Your task to perform on an android device: Open calendar and show me the second week of next month Image 0: 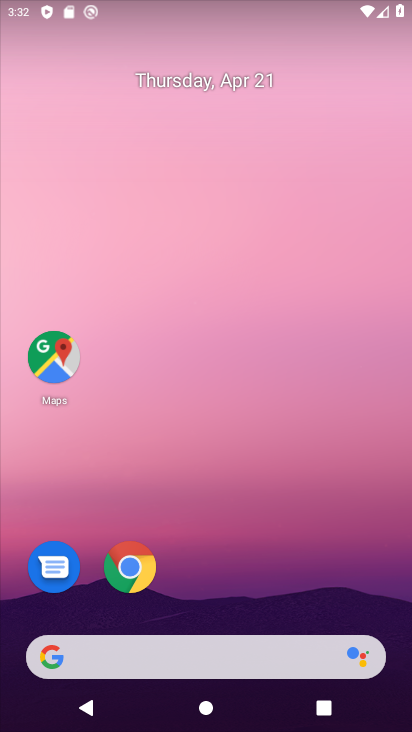
Step 0: drag from (235, 601) to (187, 84)
Your task to perform on an android device: Open calendar and show me the second week of next month Image 1: 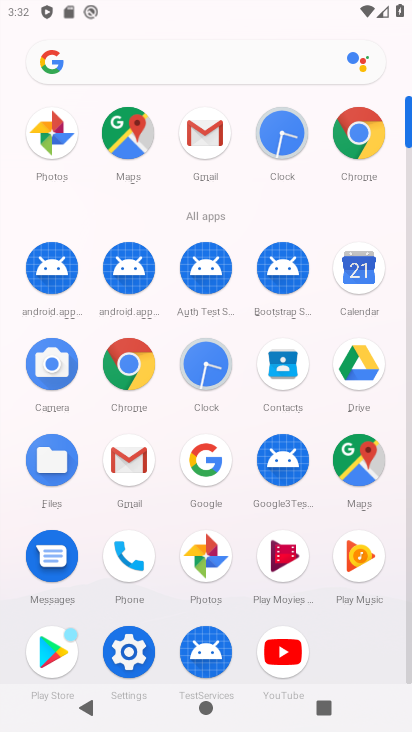
Step 1: click (357, 284)
Your task to perform on an android device: Open calendar and show me the second week of next month Image 2: 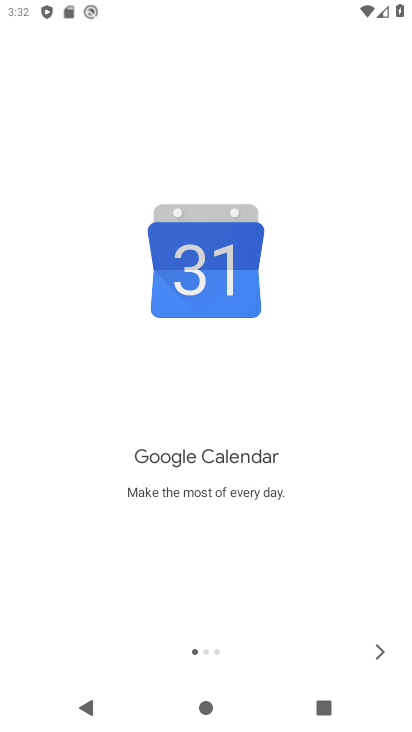
Step 2: click (381, 650)
Your task to perform on an android device: Open calendar and show me the second week of next month Image 3: 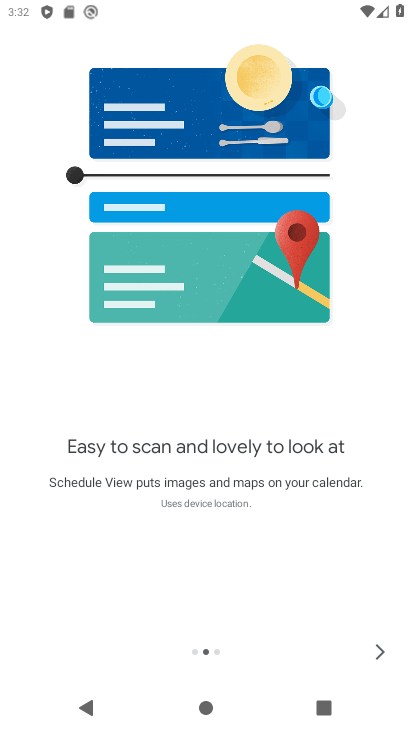
Step 3: click (381, 650)
Your task to perform on an android device: Open calendar and show me the second week of next month Image 4: 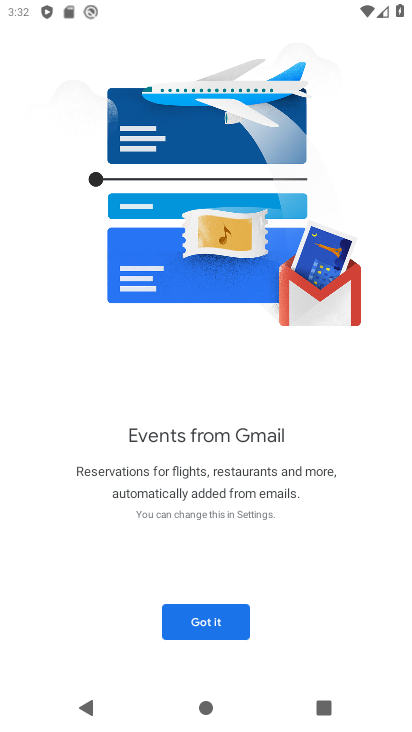
Step 4: click (217, 615)
Your task to perform on an android device: Open calendar and show me the second week of next month Image 5: 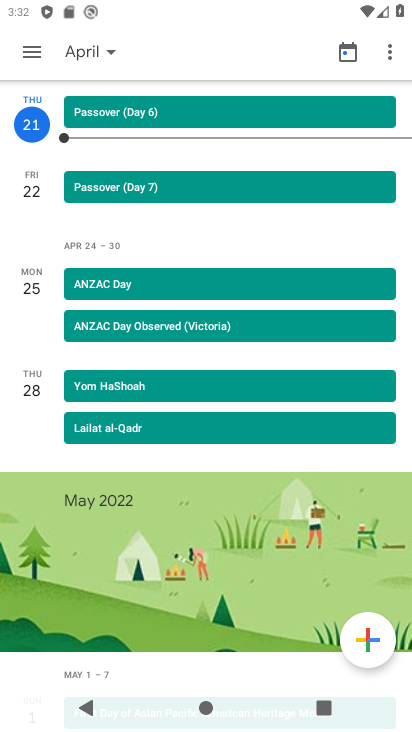
Step 5: click (112, 54)
Your task to perform on an android device: Open calendar and show me the second week of next month Image 6: 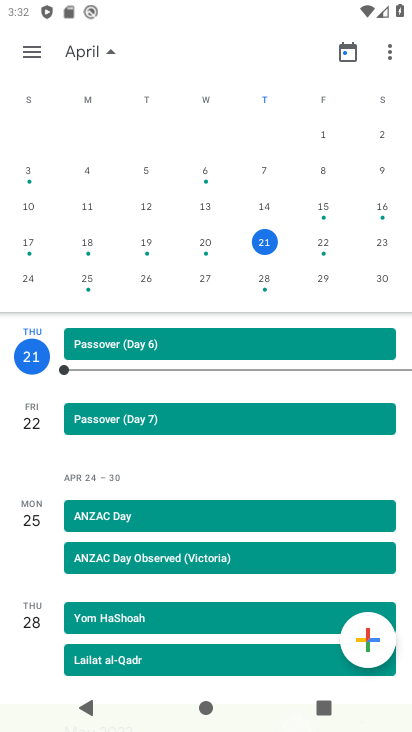
Step 6: drag from (358, 237) to (36, 266)
Your task to perform on an android device: Open calendar and show me the second week of next month Image 7: 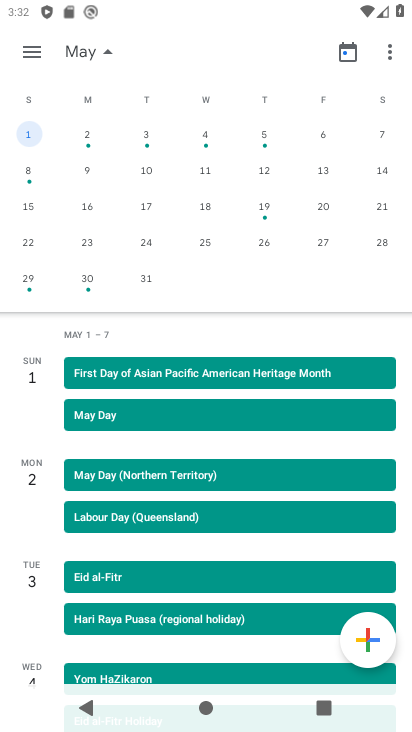
Step 7: click (200, 172)
Your task to perform on an android device: Open calendar and show me the second week of next month Image 8: 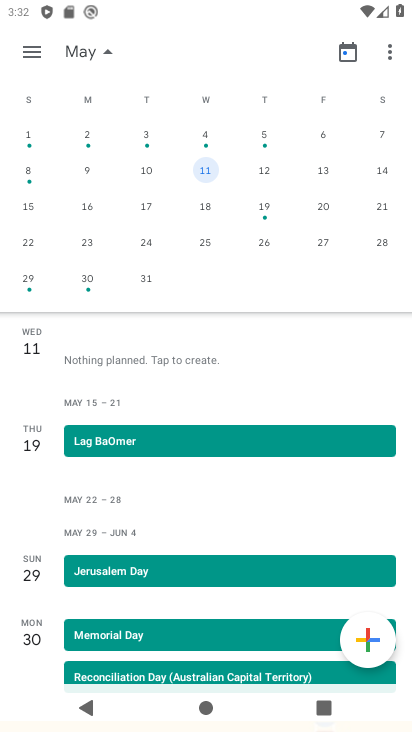
Step 8: task complete